Your task to perform on an android device: change the clock style Image 0: 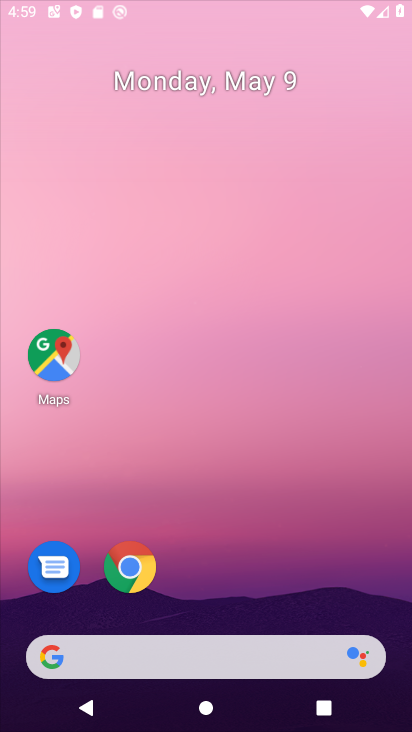
Step 0: drag from (219, 320) to (242, 43)
Your task to perform on an android device: change the clock style Image 1: 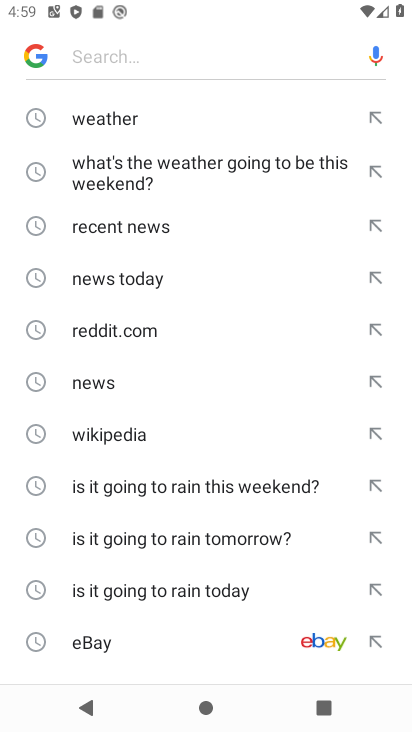
Step 1: press back button
Your task to perform on an android device: change the clock style Image 2: 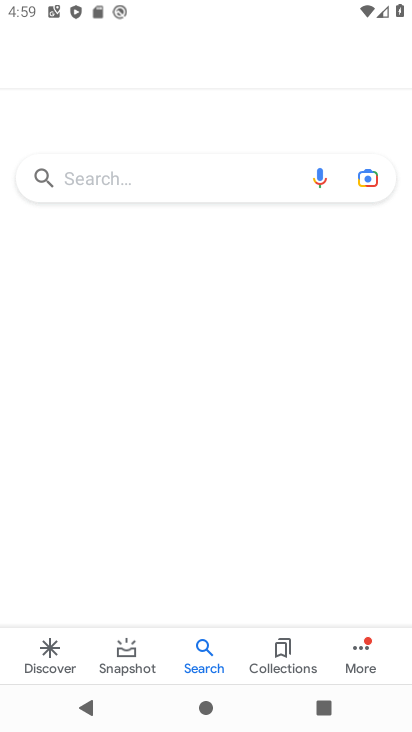
Step 2: press back button
Your task to perform on an android device: change the clock style Image 3: 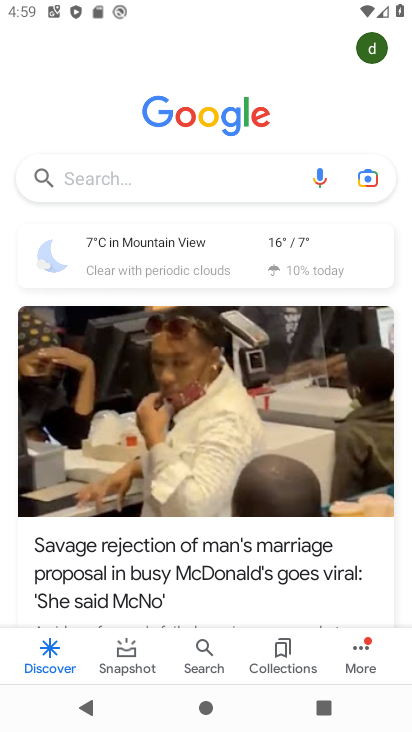
Step 3: press back button
Your task to perform on an android device: change the clock style Image 4: 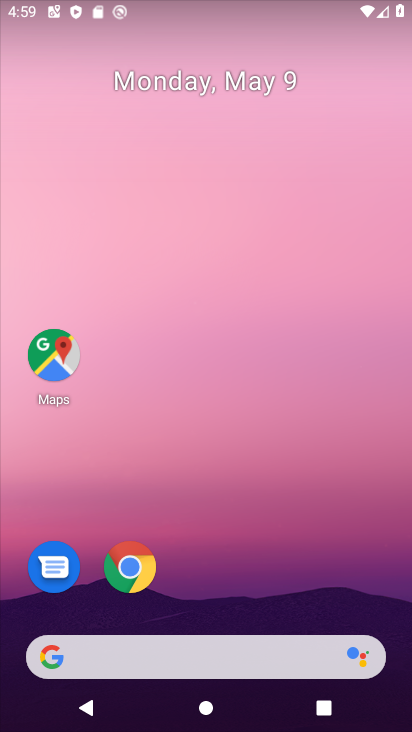
Step 4: click (205, 103)
Your task to perform on an android device: change the clock style Image 5: 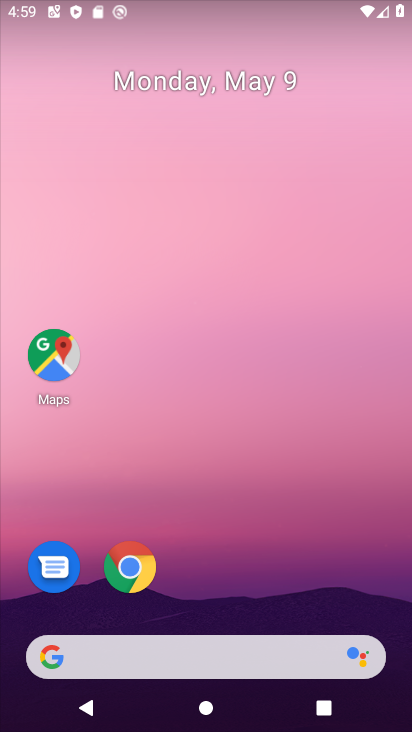
Step 5: drag from (252, 511) to (254, 154)
Your task to perform on an android device: change the clock style Image 6: 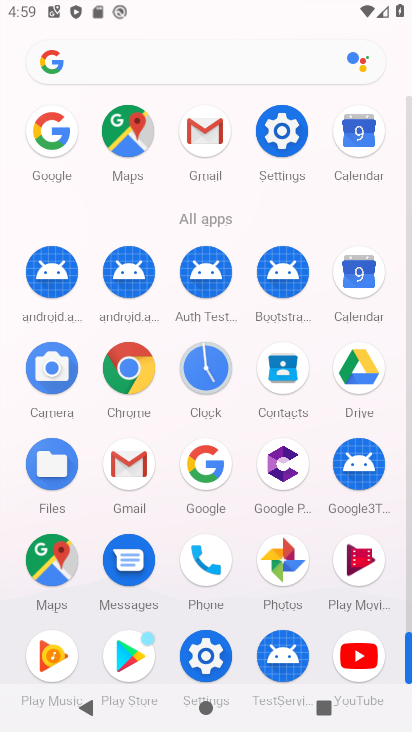
Step 6: click (207, 402)
Your task to perform on an android device: change the clock style Image 7: 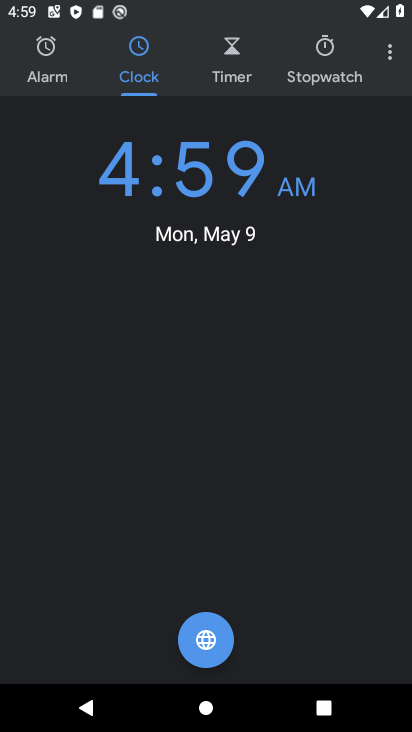
Step 7: click (394, 63)
Your task to perform on an android device: change the clock style Image 8: 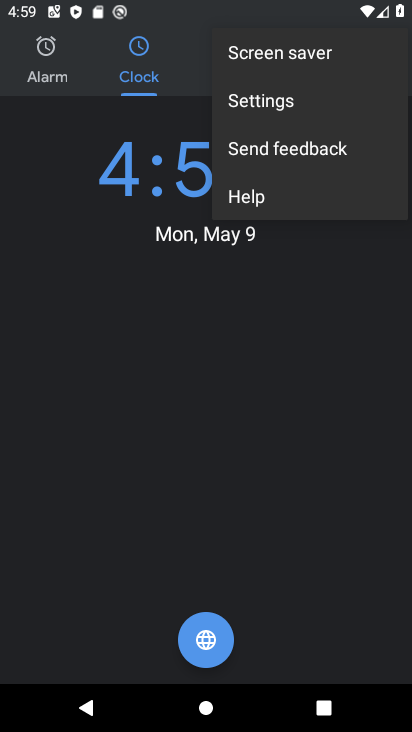
Step 8: click (271, 110)
Your task to perform on an android device: change the clock style Image 9: 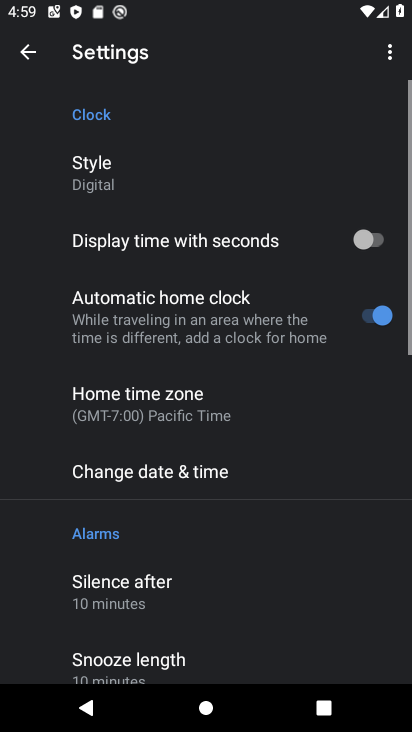
Step 9: click (102, 182)
Your task to perform on an android device: change the clock style Image 10: 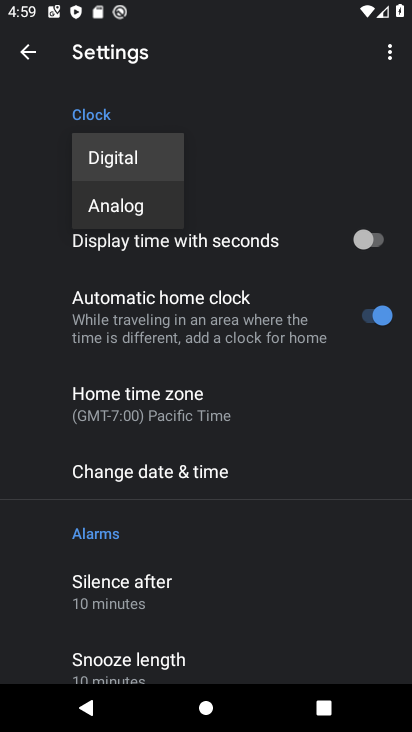
Step 10: click (130, 226)
Your task to perform on an android device: change the clock style Image 11: 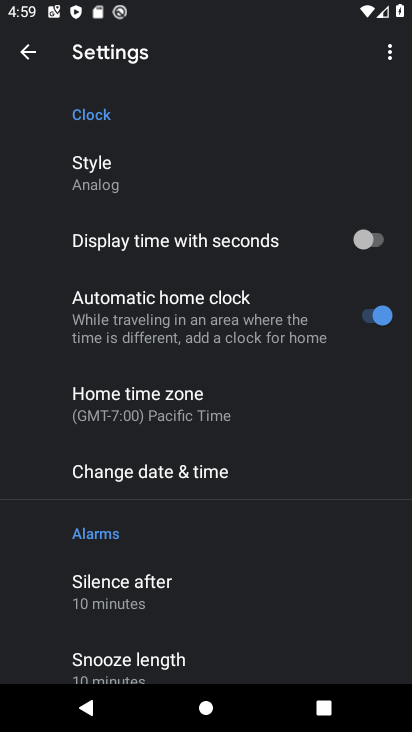
Step 11: task complete